Your task to perform on an android device: Go to Google Image 0: 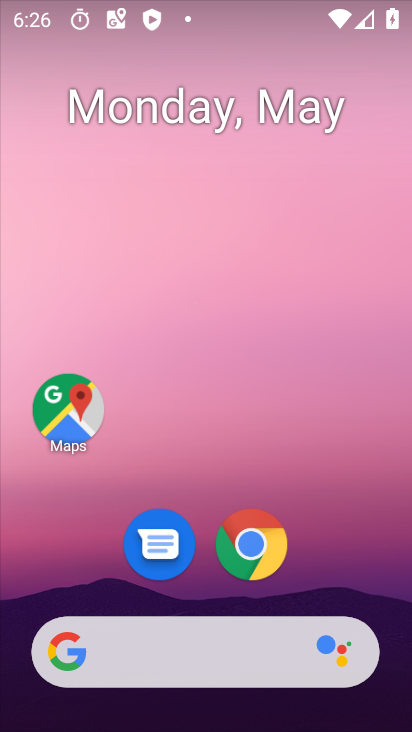
Step 0: drag from (360, 537) to (243, 28)
Your task to perform on an android device: Go to Google Image 1: 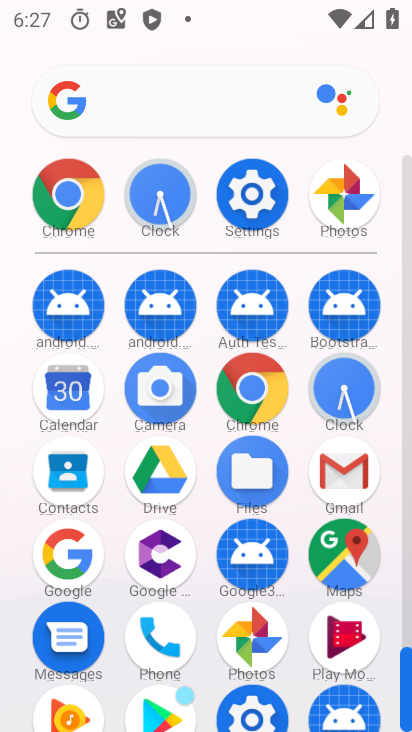
Step 1: click (71, 551)
Your task to perform on an android device: Go to Google Image 2: 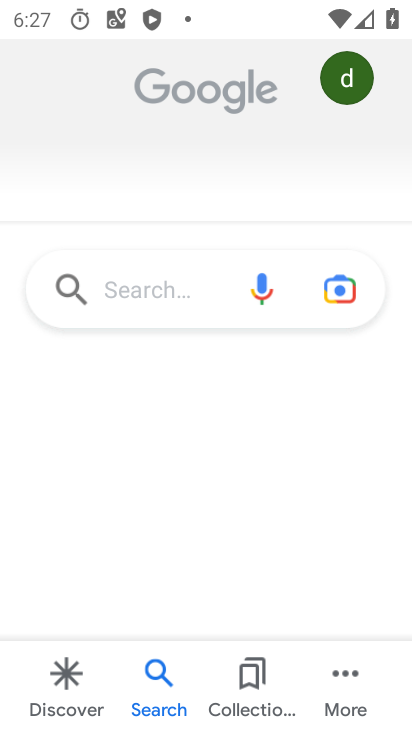
Step 2: task complete